Your task to perform on an android device: turn off javascript in the chrome app Image 0: 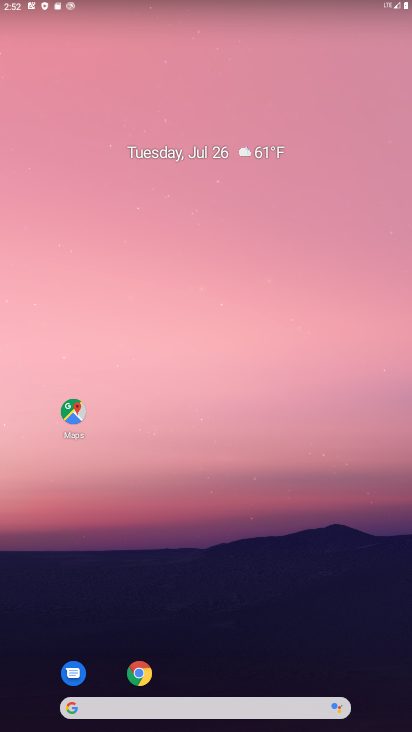
Step 0: drag from (175, 678) to (153, 3)
Your task to perform on an android device: turn off javascript in the chrome app Image 1: 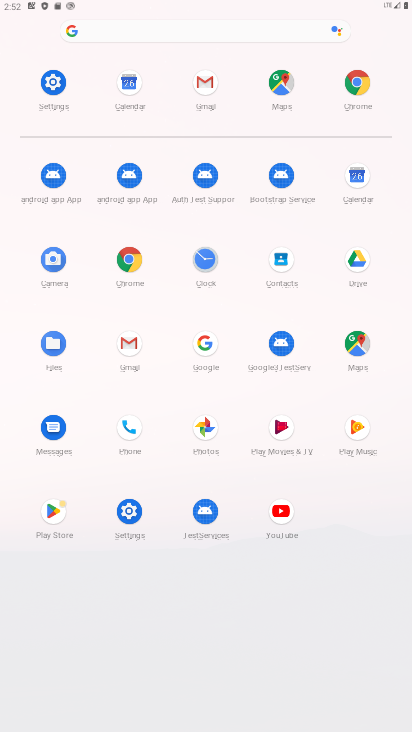
Step 1: click (135, 261)
Your task to perform on an android device: turn off javascript in the chrome app Image 2: 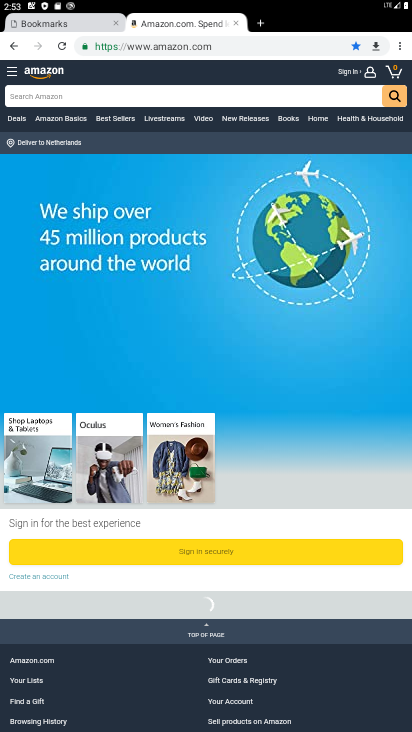
Step 2: drag from (395, 44) to (322, 304)
Your task to perform on an android device: turn off javascript in the chrome app Image 3: 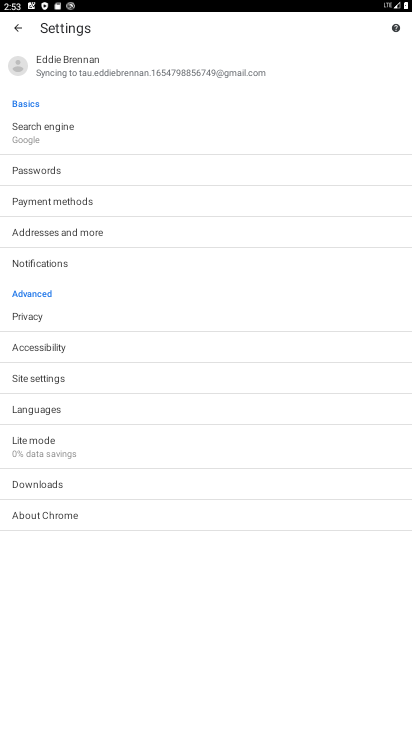
Step 3: click (56, 377)
Your task to perform on an android device: turn off javascript in the chrome app Image 4: 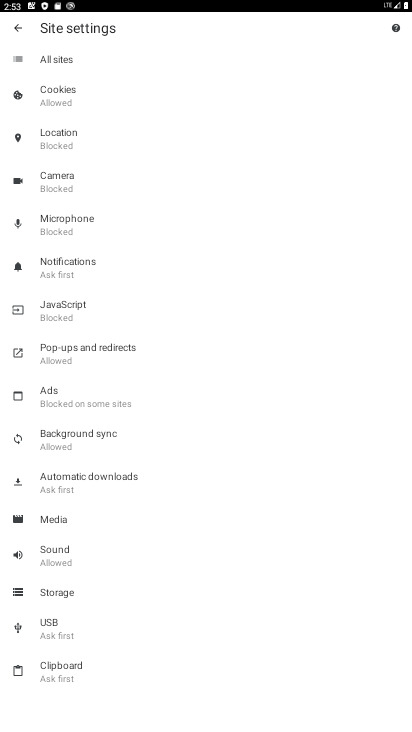
Step 4: click (90, 317)
Your task to perform on an android device: turn off javascript in the chrome app Image 5: 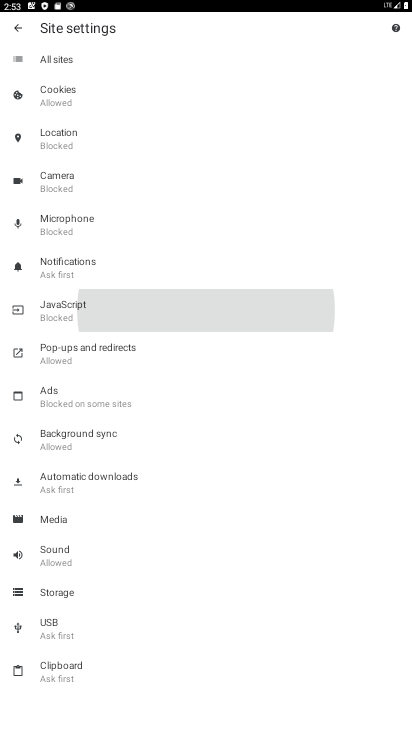
Step 5: click (90, 317)
Your task to perform on an android device: turn off javascript in the chrome app Image 6: 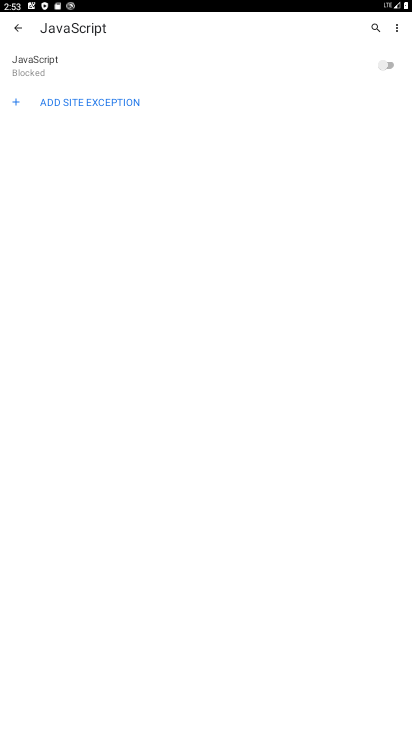
Step 6: task complete